Your task to perform on an android device: What's the weather? Image 0: 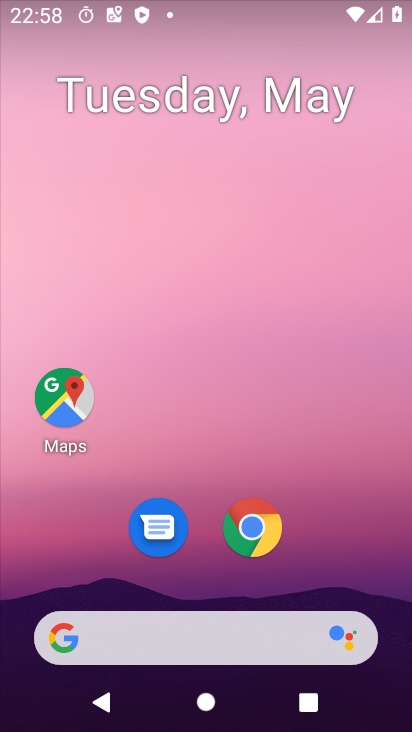
Step 0: click (255, 116)
Your task to perform on an android device: What's the weather? Image 1: 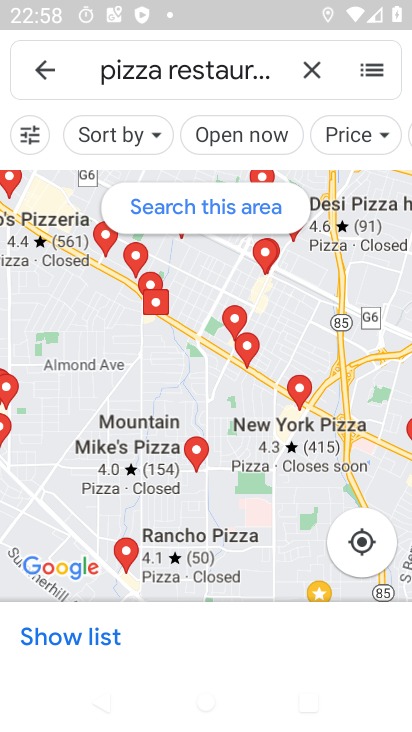
Step 1: click (56, 67)
Your task to perform on an android device: What's the weather? Image 2: 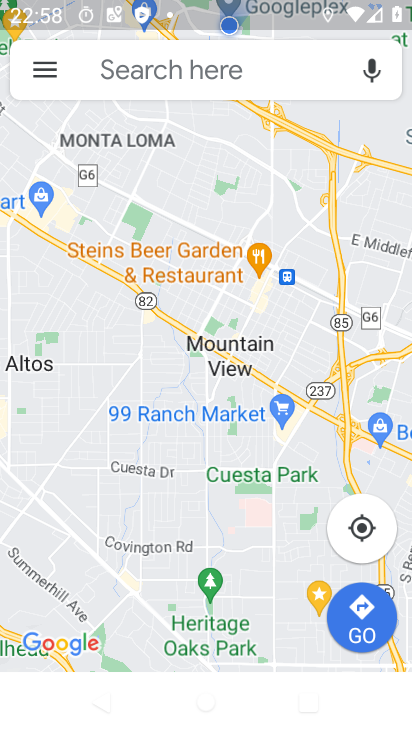
Step 2: click (131, 70)
Your task to perform on an android device: What's the weather? Image 3: 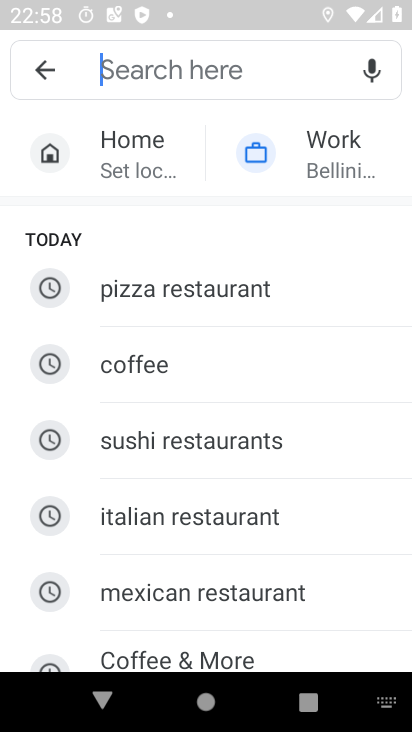
Step 3: drag from (217, 520) to (239, 286)
Your task to perform on an android device: What's the weather? Image 4: 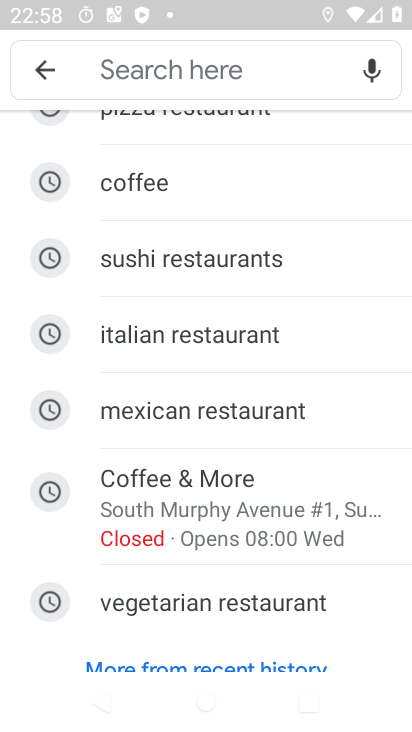
Step 4: drag from (256, 542) to (270, 269)
Your task to perform on an android device: What's the weather? Image 5: 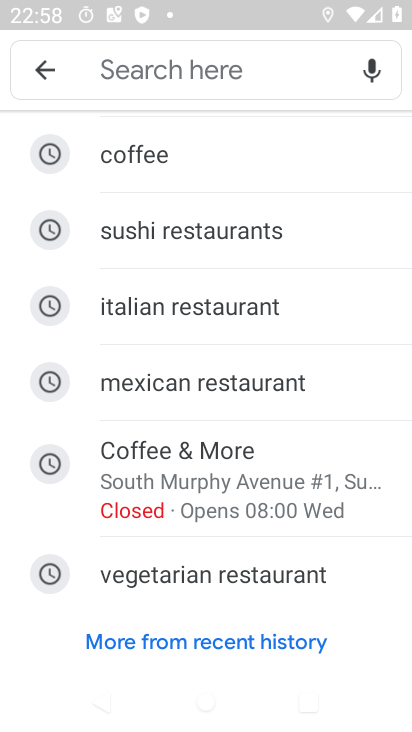
Step 5: click (123, 82)
Your task to perform on an android device: What's the weather? Image 6: 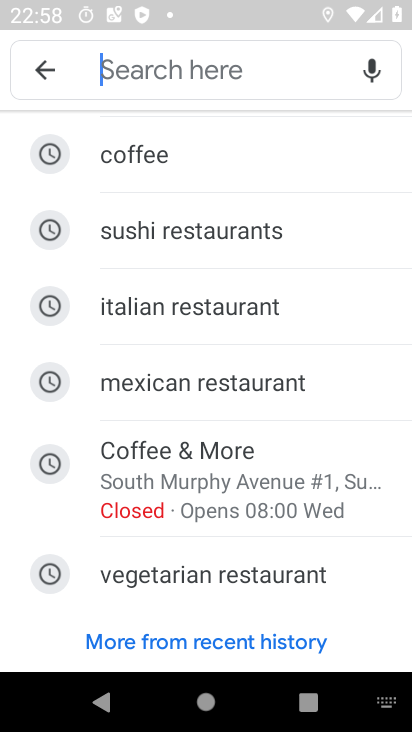
Step 6: type "weather?"
Your task to perform on an android device: What's the weather? Image 7: 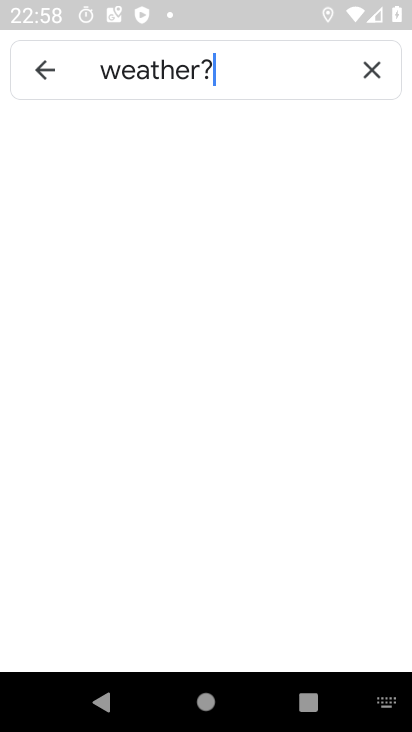
Step 7: type ""
Your task to perform on an android device: What's the weather? Image 8: 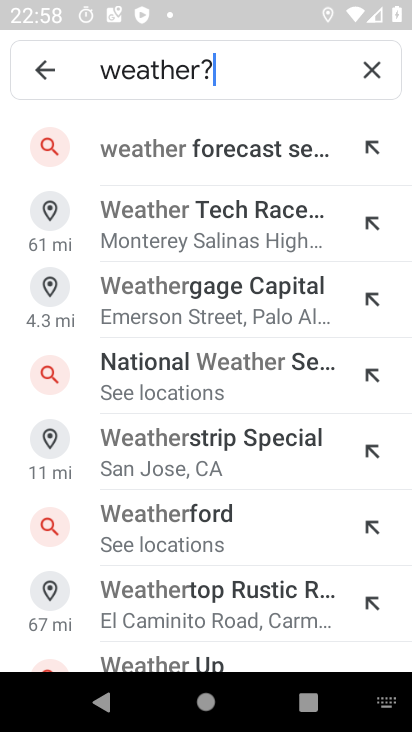
Step 8: drag from (200, 557) to (238, 100)
Your task to perform on an android device: What's the weather? Image 9: 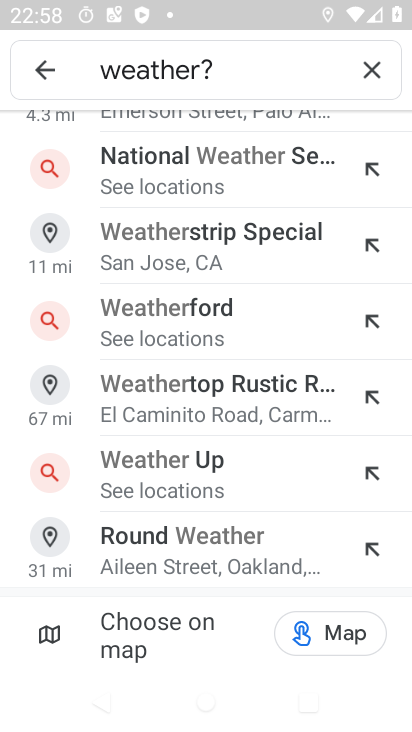
Step 9: press home button
Your task to perform on an android device: What's the weather? Image 10: 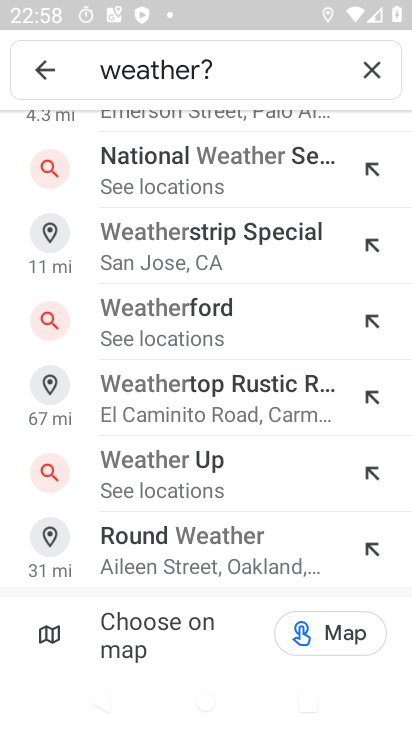
Step 10: drag from (248, 617) to (285, 0)
Your task to perform on an android device: What's the weather? Image 11: 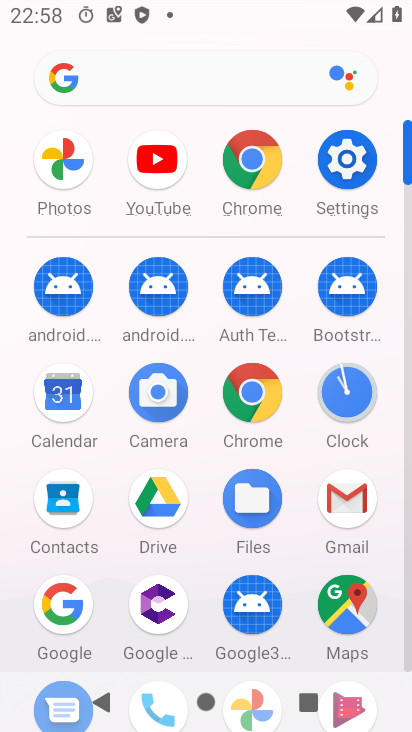
Step 11: click (191, 91)
Your task to perform on an android device: What's the weather? Image 12: 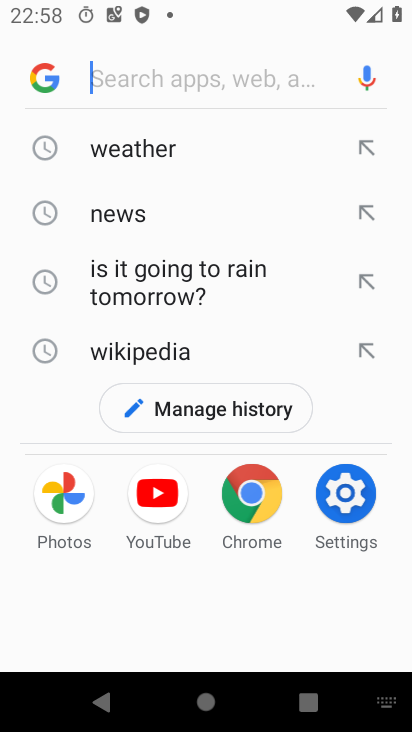
Step 12: click (172, 160)
Your task to perform on an android device: What's the weather? Image 13: 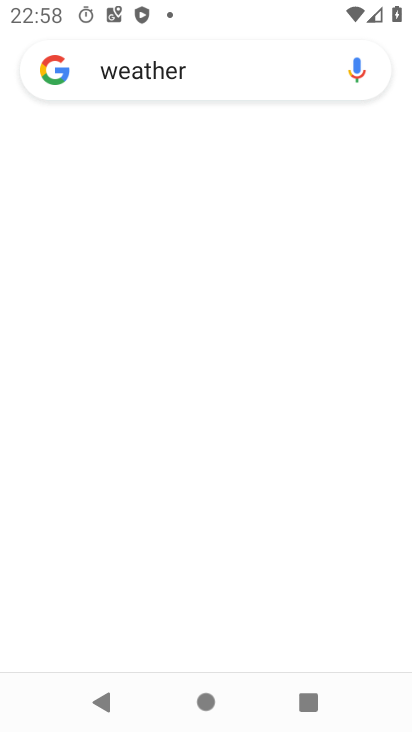
Step 13: task complete